Your task to perform on an android device: turn pop-ups on in chrome Image 0: 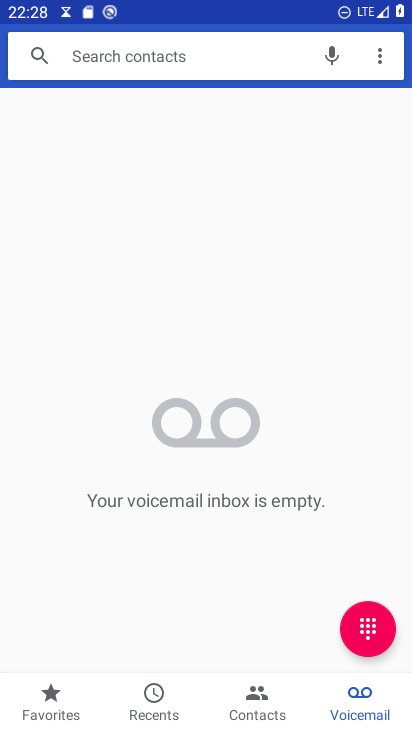
Step 0: drag from (263, 619) to (265, 244)
Your task to perform on an android device: turn pop-ups on in chrome Image 1: 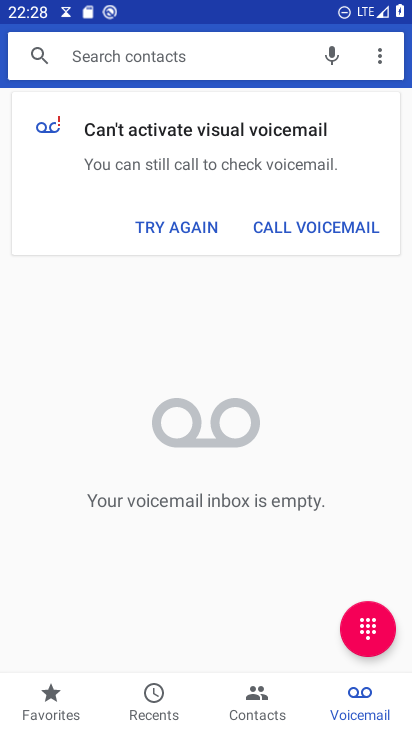
Step 1: press home button
Your task to perform on an android device: turn pop-ups on in chrome Image 2: 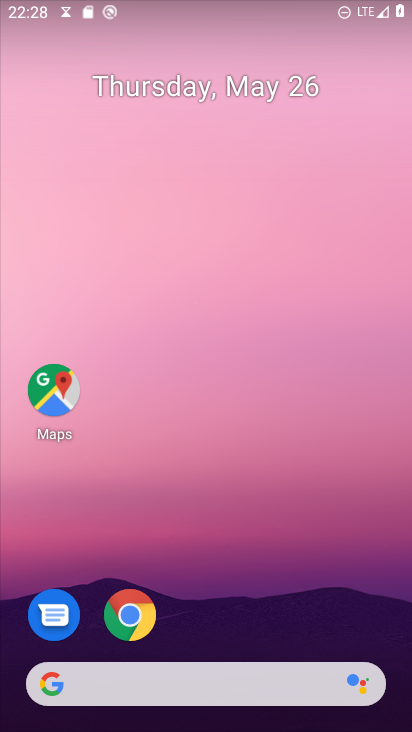
Step 2: drag from (220, 637) to (259, 237)
Your task to perform on an android device: turn pop-ups on in chrome Image 3: 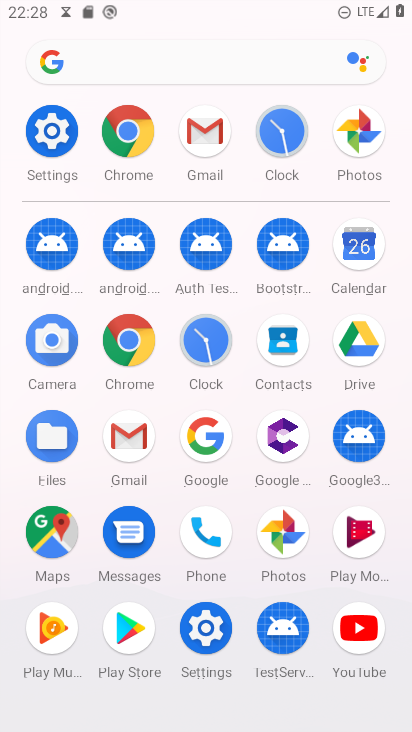
Step 3: click (114, 339)
Your task to perform on an android device: turn pop-ups on in chrome Image 4: 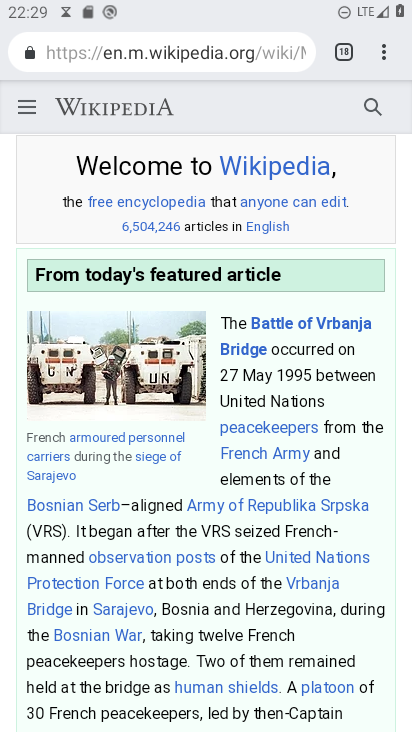
Step 4: click (389, 43)
Your task to perform on an android device: turn pop-ups on in chrome Image 5: 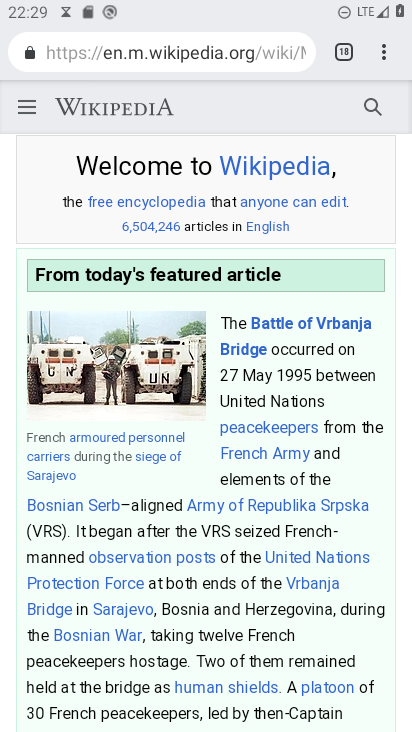
Step 5: click (389, 43)
Your task to perform on an android device: turn pop-ups on in chrome Image 6: 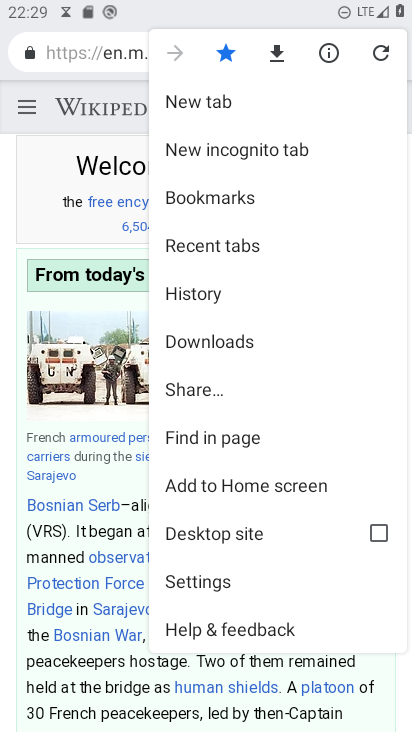
Step 6: click (226, 582)
Your task to perform on an android device: turn pop-ups on in chrome Image 7: 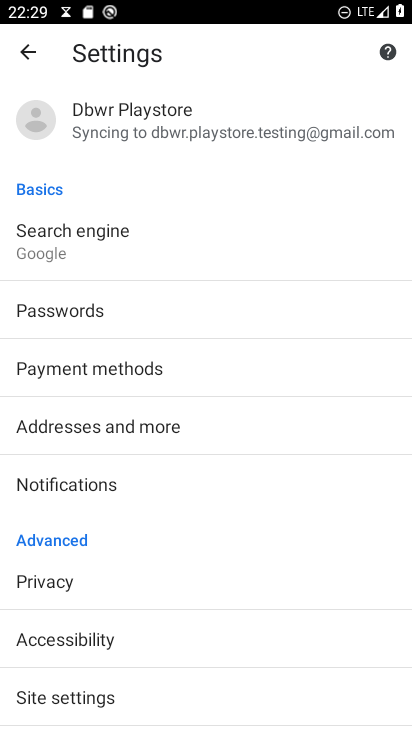
Step 7: drag from (124, 558) to (160, 275)
Your task to perform on an android device: turn pop-ups on in chrome Image 8: 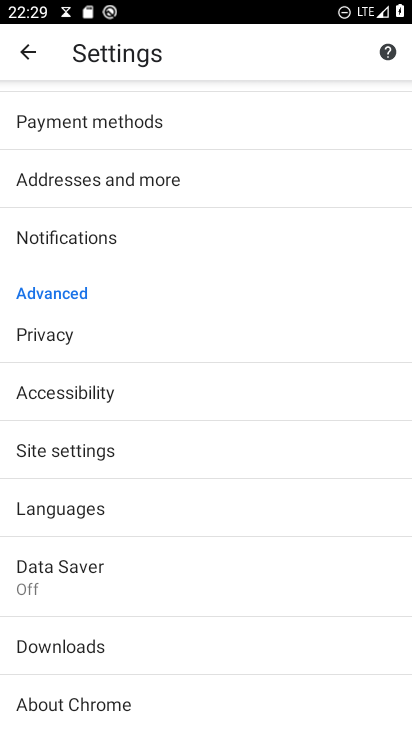
Step 8: click (90, 460)
Your task to perform on an android device: turn pop-ups on in chrome Image 9: 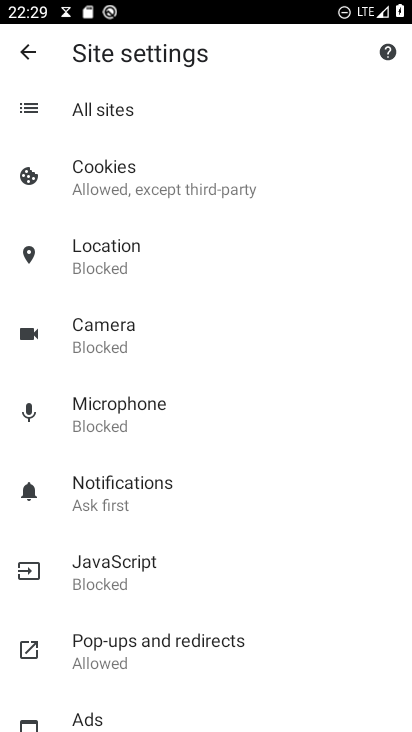
Step 9: click (169, 641)
Your task to perform on an android device: turn pop-ups on in chrome Image 10: 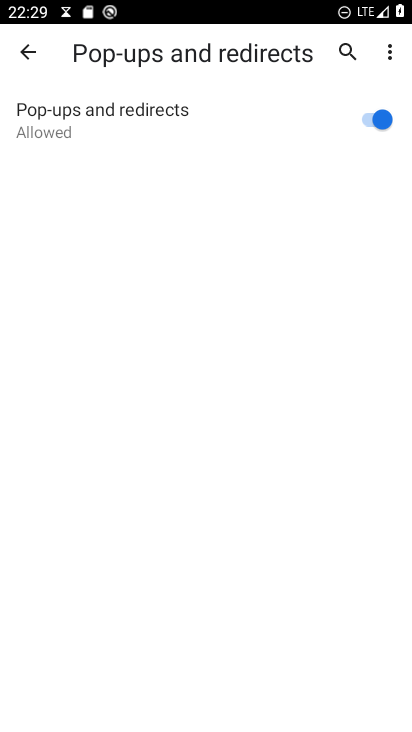
Step 10: task complete